Your task to perform on an android device: View the shopping cart on costco.com. Add "logitech g pro" to the cart on costco.com, then select checkout. Image 0: 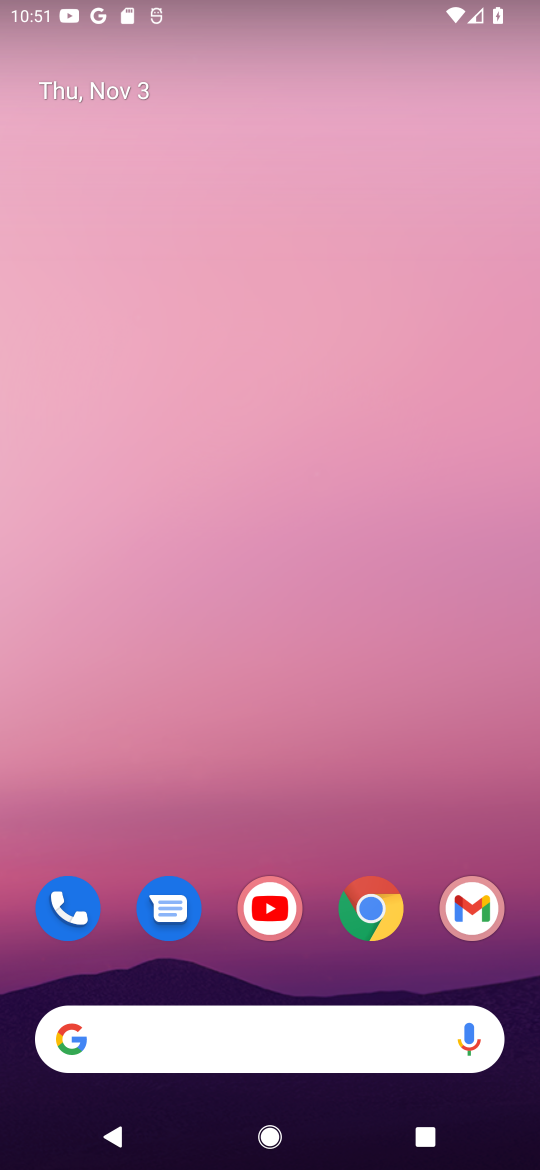
Step 0: click (374, 911)
Your task to perform on an android device: View the shopping cart on costco.com. Add "logitech g pro" to the cart on costco.com, then select checkout. Image 1: 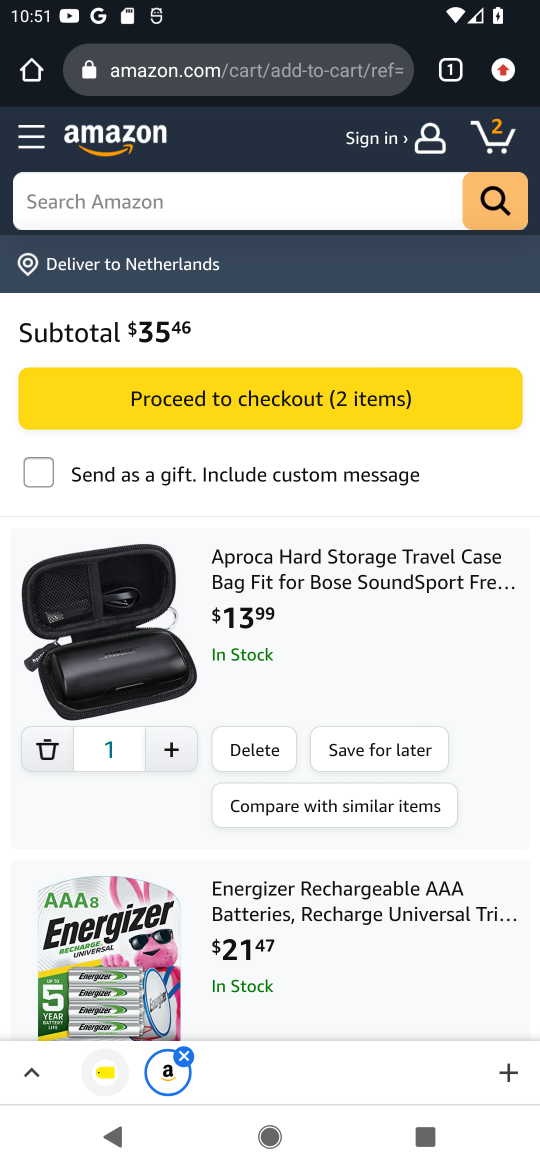
Step 1: click (21, 72)
Your task to perform on an android device: View the shopping cart on costco.com. Add "logitech g pro" to the cart on costco.com, then select checkout. Image 2: 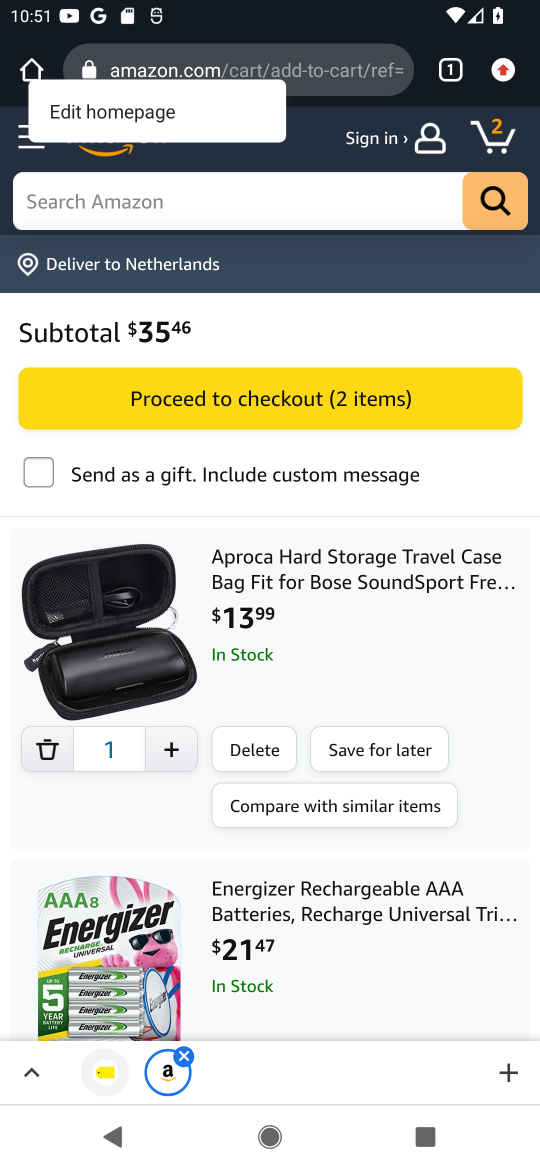
Step 2: click (33, 72)
Your task to perform on an android device: View the shopping cart on costco.com. Add "logitech g pro" to the cart on costco.com, then select checkout. Image 3: 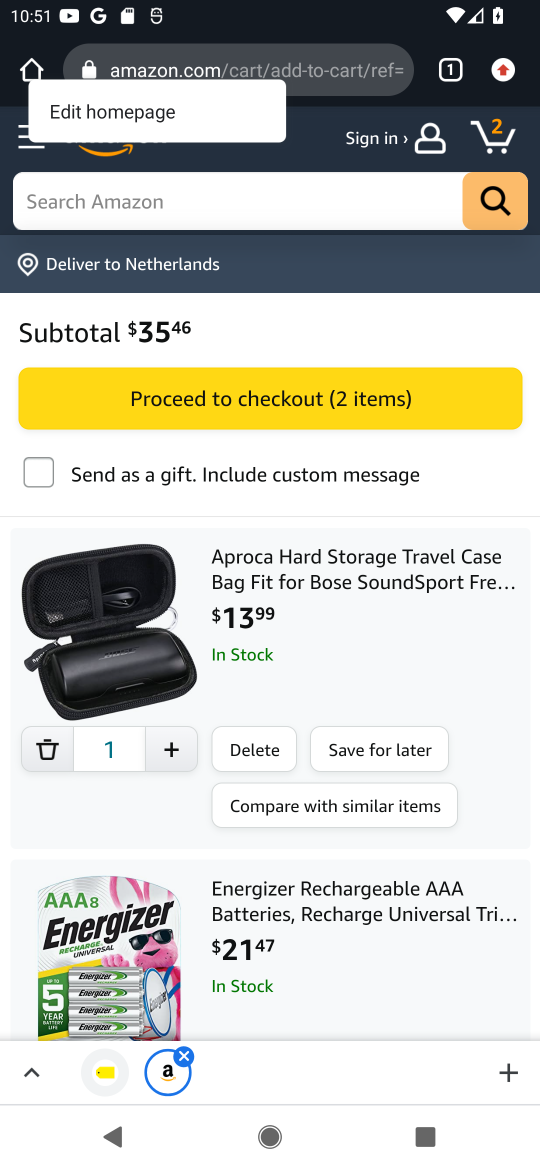
Step 3: click (35, 71)
Your task to perform on an android device: View the shopping cart on costco.com. Add "logitech g pro" to the cart on costco.com, then select checkout. Image 4: 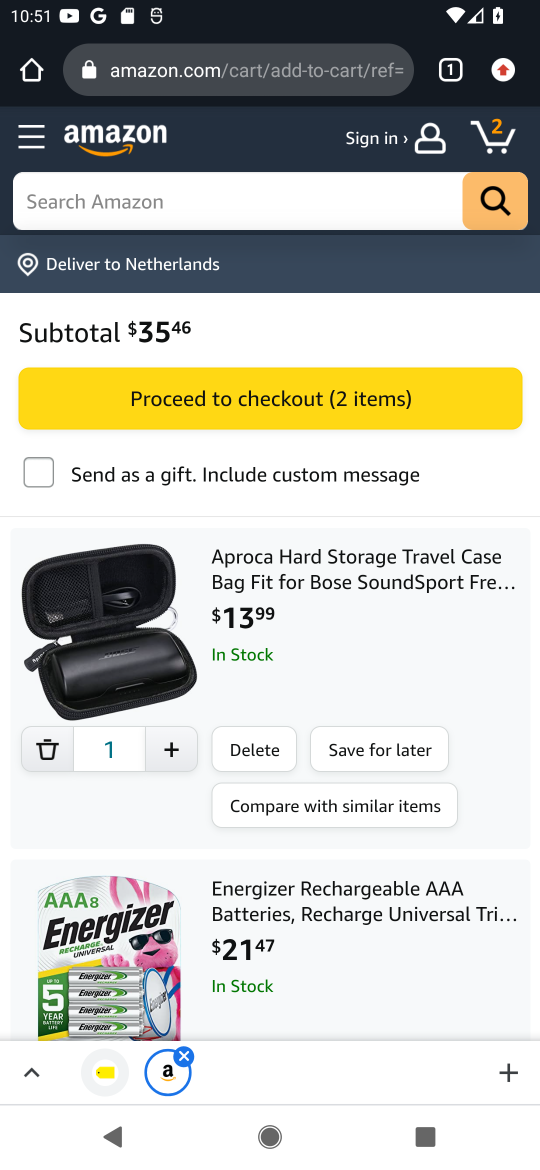
Step 4: click (35, 71)
Your task to perform on an android device: View the shopping cart on costco.com. Add "logitech g pro" to the cart on costco.com, then select checkout. Image 5: 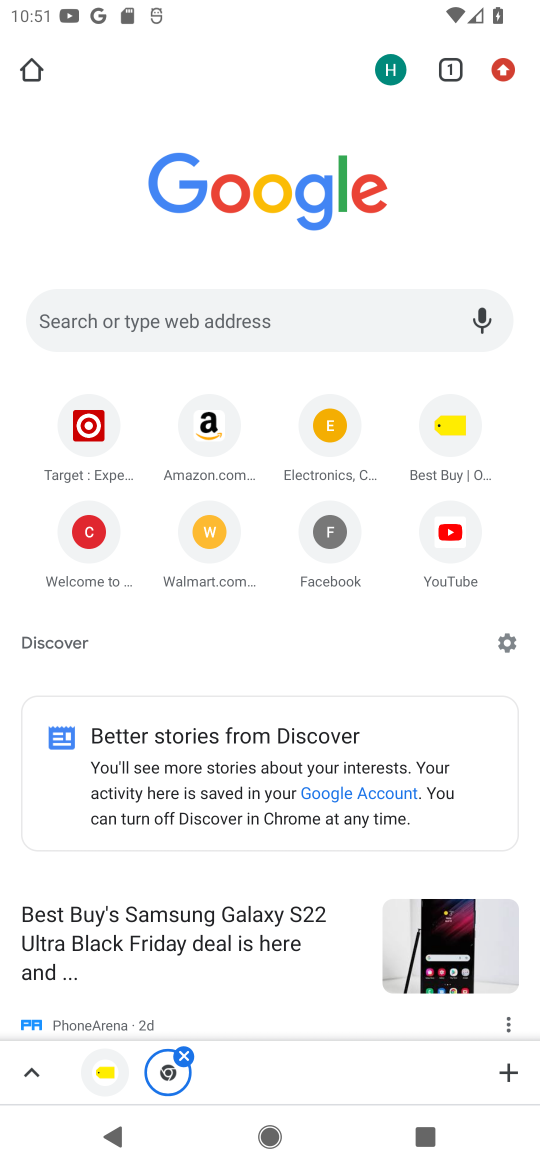
Step 5: click (333, 320)
Your task to perform on an android device: View the shopping cart on costco.com. Add "logitech g pro" to the cart on costco.com, then select checkout. Image 6: 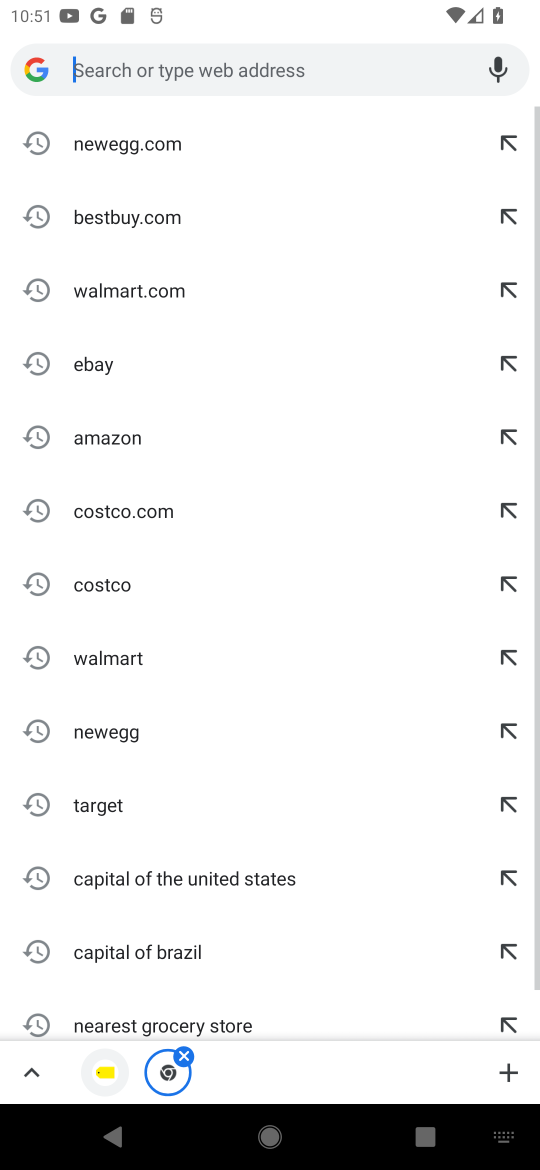
Step 6: click (148, 507)
Your task to perform on an android device: View the shopping cart on costco.com. Add "logitech g pro" to the cart on costco.com, then select checkout. Image 7: 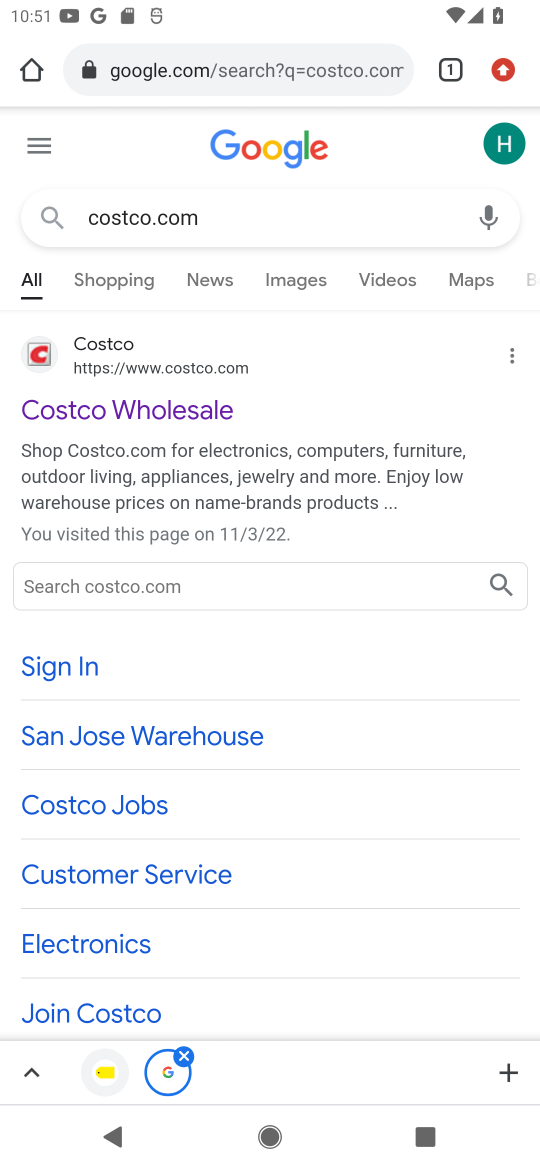
Step 7: click (177, 365)
Your task to perform on an android device: View the shopping cart on costco.com. Add "logitech g pro" to the cart on costco.com, then select checkout. Image 8: 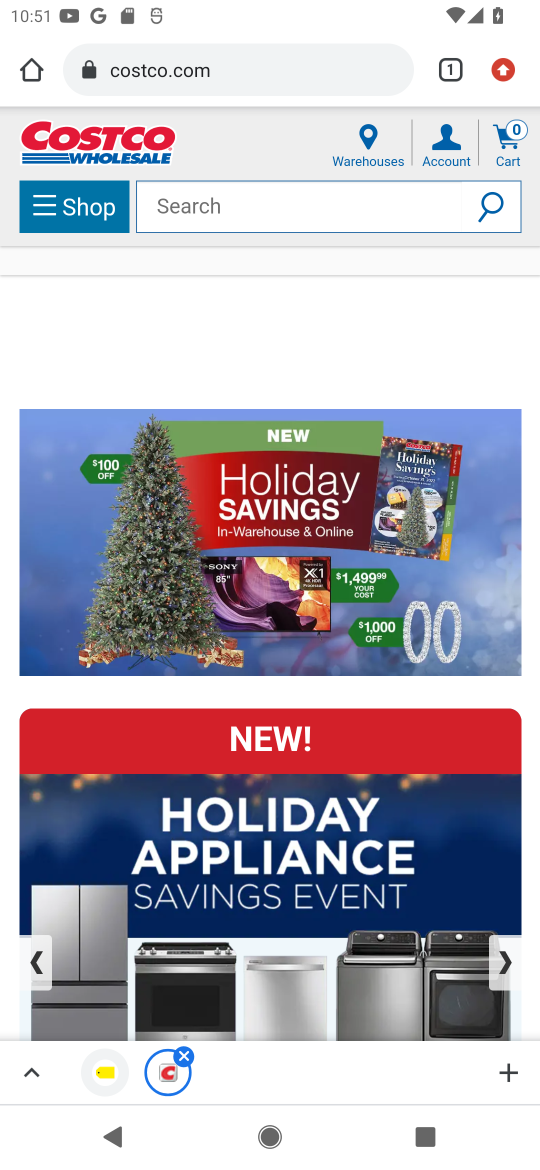
Step 8: click (502, 152)
Your task to perform on an android device: View the shopping cart on costco.com. Add "logitech g pro" to the cart on costco.com, then select checkout. Image 9: 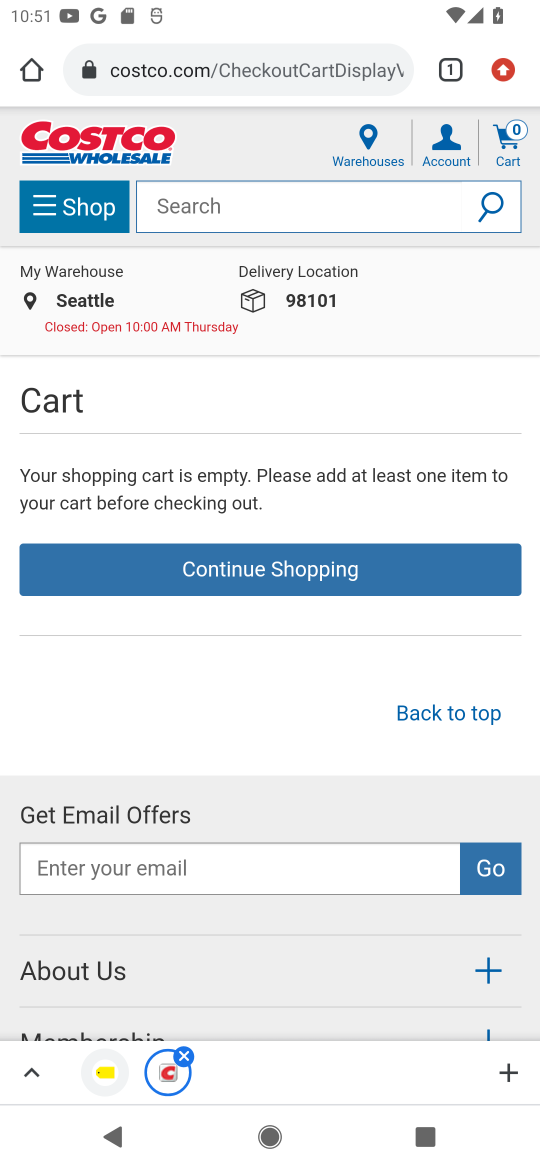
Step 9: click (207, 204)
Your task to perform on an android device: View the shopping cart on costco.com. Add "logitech g pro" to the cart on costco.com, then select checkout. Image 10: 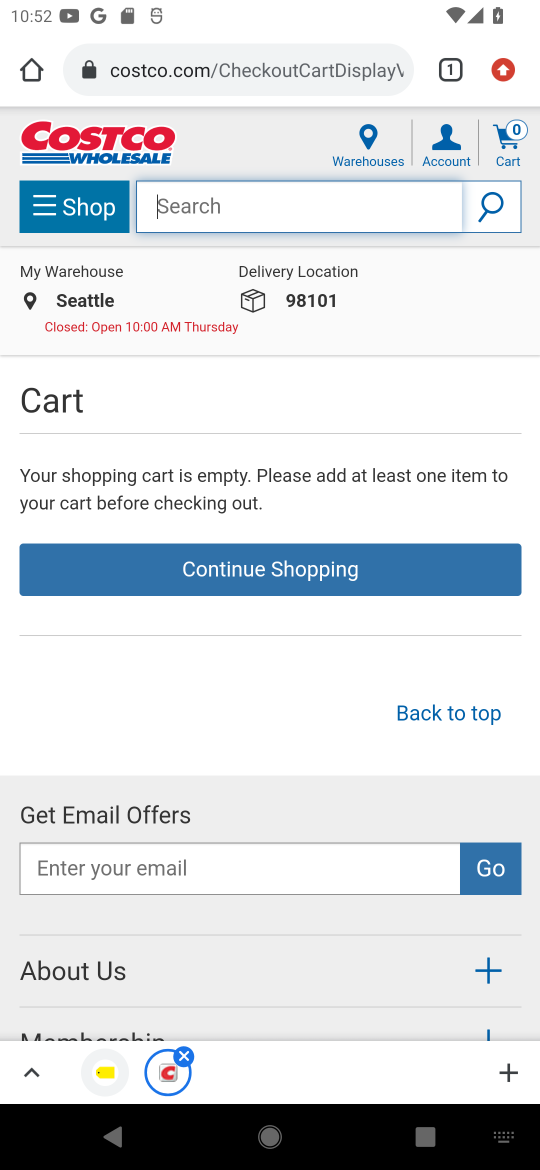
Step 10: type "logitech g pro"
Your task to perform on an android device: View the shopping cart on costco.com. Add "logitech g pro" to the cart on costco.com, then select checkout. Image 11: 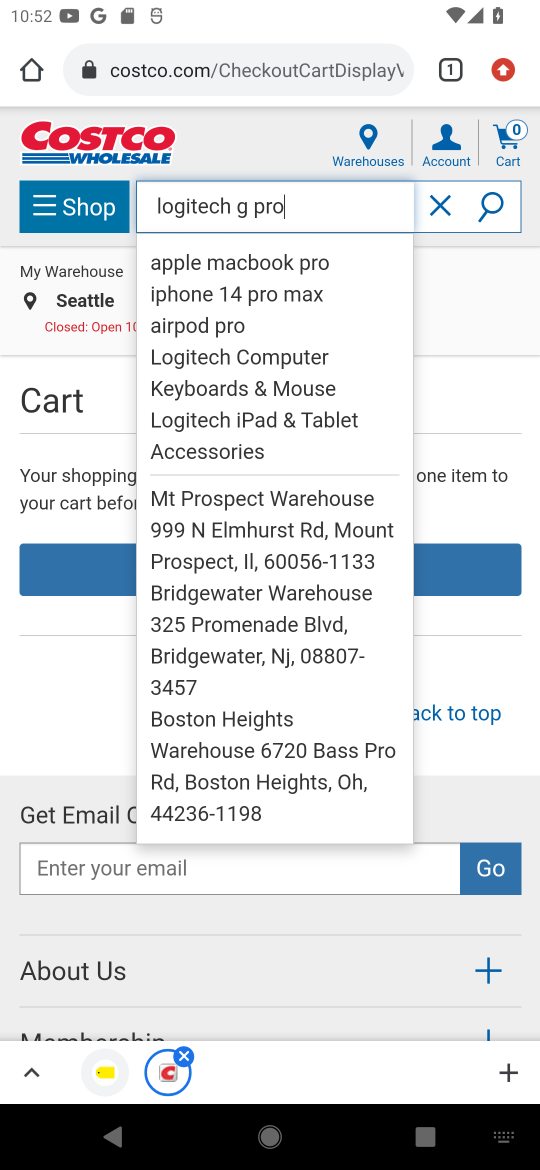
Step 11: task complete